Your task to perform on an android device: change the upload size in google photos Image 0: 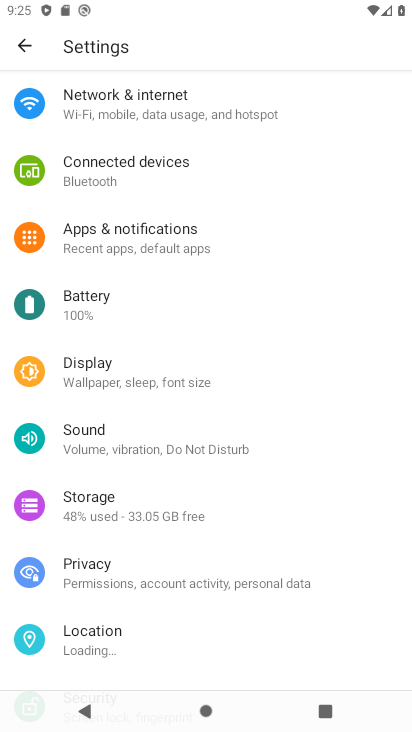
Step 0: press home button
Your task to perform on an android device: change the upload size in google photos Image 1: 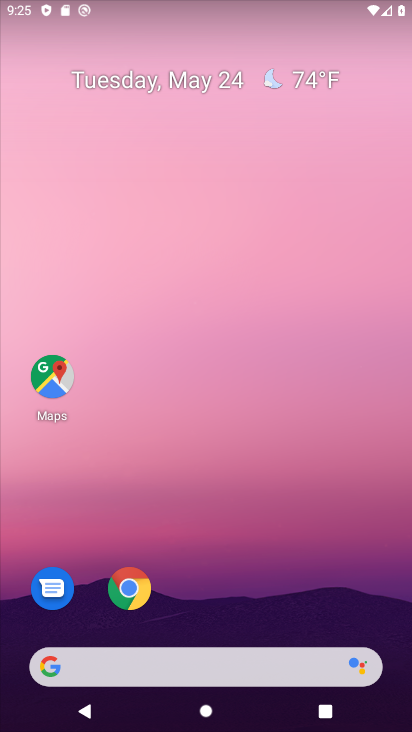
Step 1: drag from (200, 629) to (183, 71)
Your task to perform on an android device: change the upload size in google photos Image 2: 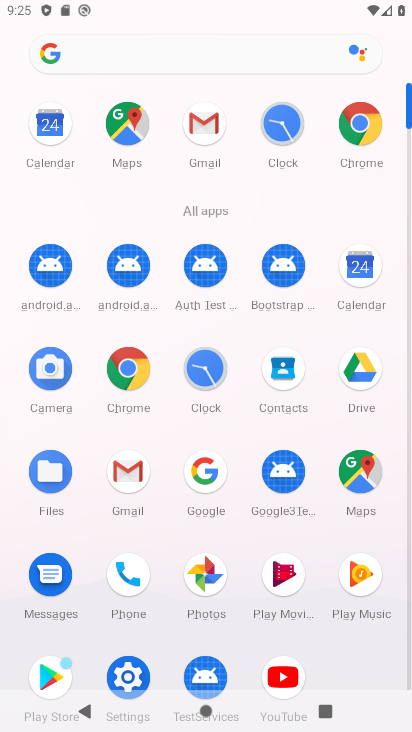
Step 2: click (201, 569)
Your task to perform on an android device: change the upload size in google photos Image 3: 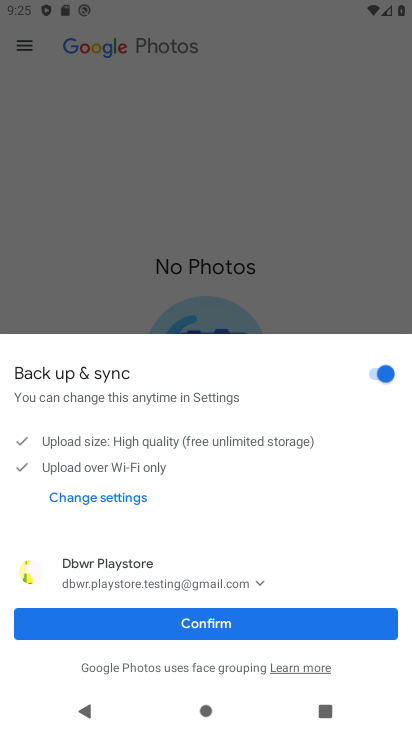
Step 3: click (130, 510)
Your task to perform on an android device: change the upload size in google photos Image 4: 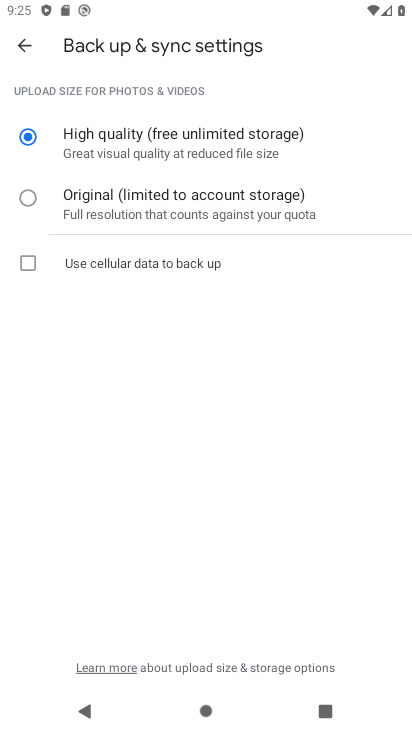
Step 4: click (137, 219)
Your task to perform on an android device: change the upload size in google photos Image 5: 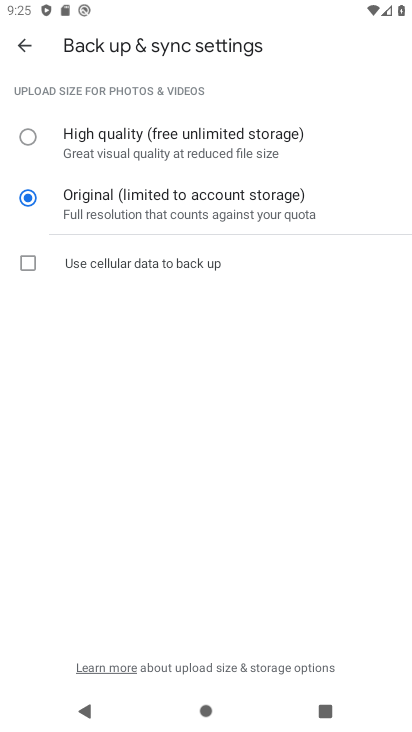
Step 5: task complete